Your task to perform on an android device: Show me popular games on the Play Store Image 0: 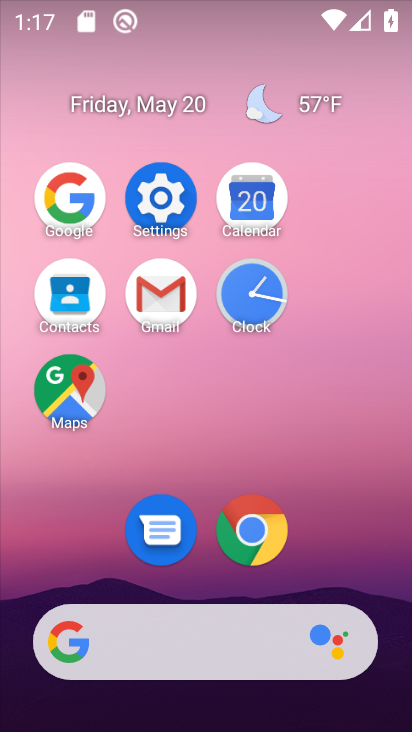
Step 0: drag from (350, 466) to (336, 141)
Your task to perform on an android device: Show me popular games on the Play Store Image 1: 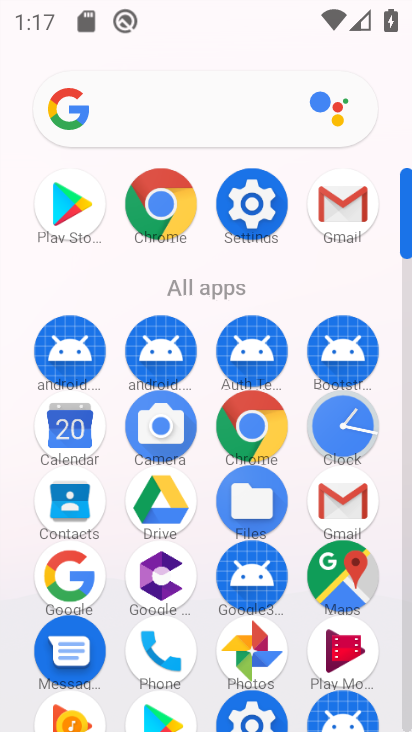
Step 1: drag from (224, 661) to (243, 255)
Your task to perform on an android device: Show me popular games on the Play Store Image 2: 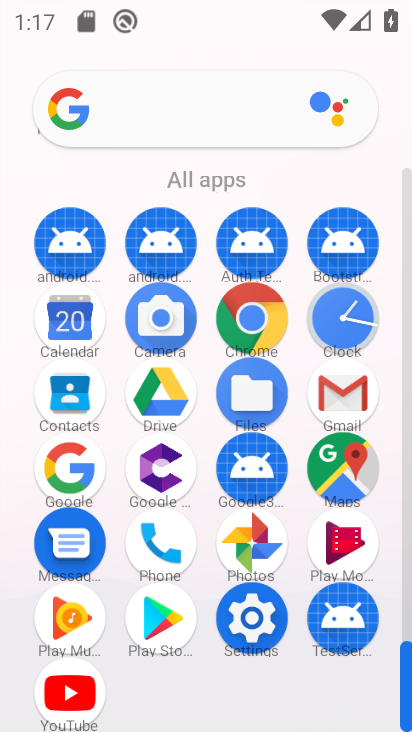
Step 2: click (161, 614)
Your task to perform on an android device: Show me popular games on the Play Store Image 3: 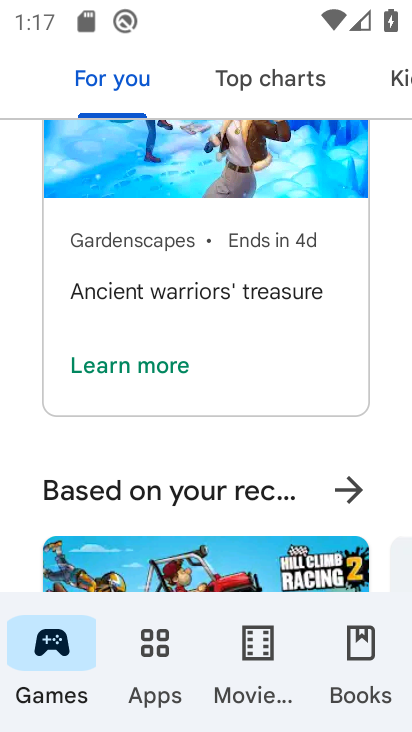
Step 3: drag from (221, 491) to (265, 131)
Your task to perform on an android device: Show me popular games on the Play Store Image 4: 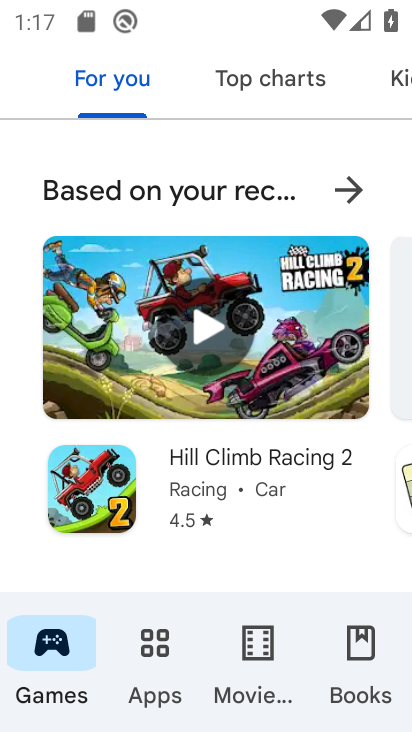
Step 4: drag from (202, 436) to (183, 106)
Your task to perform on an android device: Show me popular games on the Play Store Image 5: 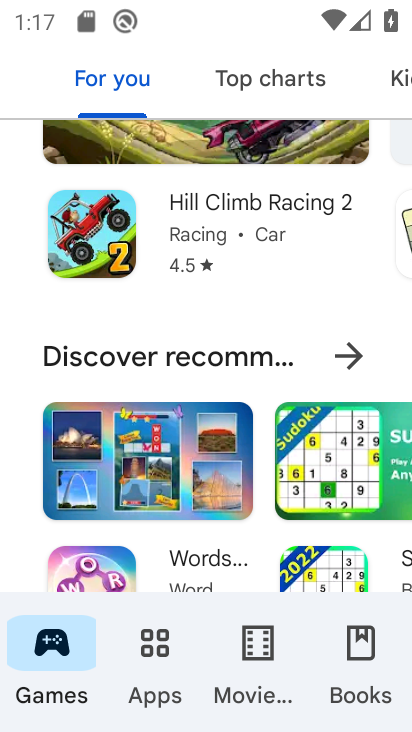
Step 5: drag from (233, 500) to (266, 85)
Your task to perform on an android device: Show me popular games on the Play Store Image 6: 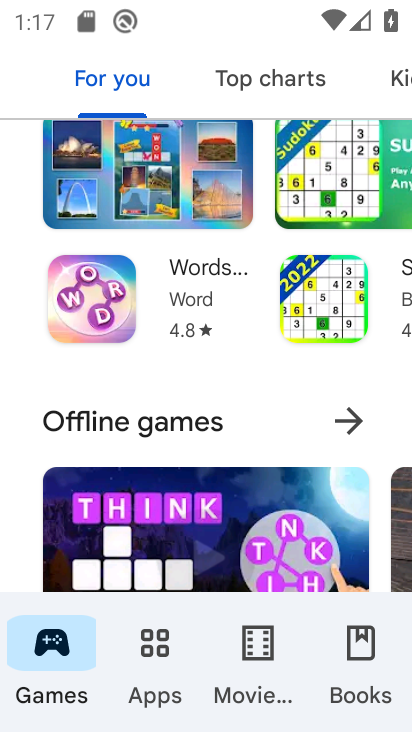
Step 6: drag from (237, 454) to (283, 111)
Your task to perform on an android device: Show me popular games on the Play Store Image 7: 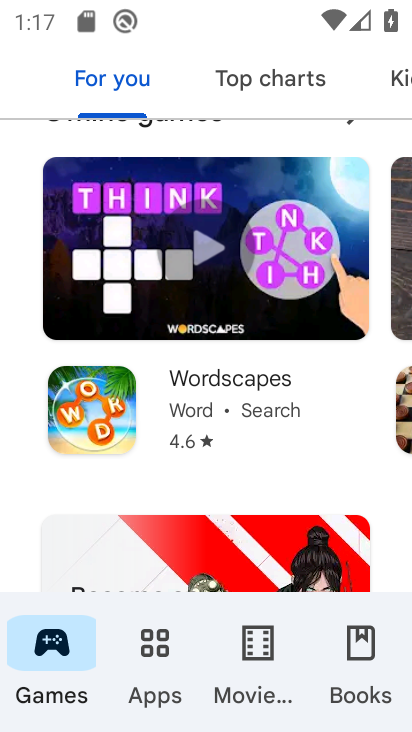
Step 7: drag from (230, 523) to (280, 118)
Your task to perform on an android device: Show me popular games on the Play Store Image 8: 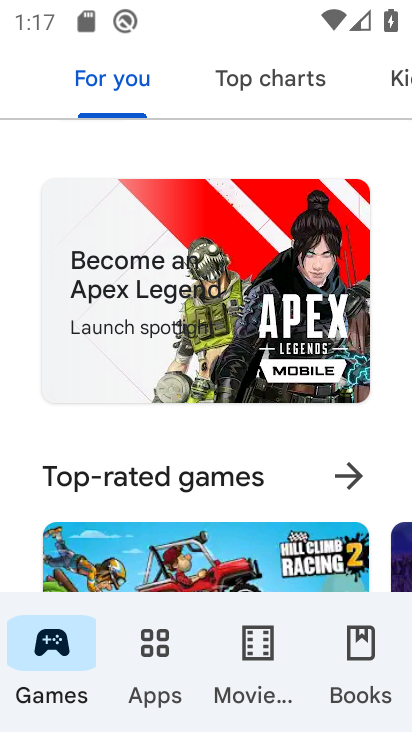
Step 8: drag from (205, 525) to (271, 148)
Your task to perform on an android device: Show me popular games on the Play Store Image 9: 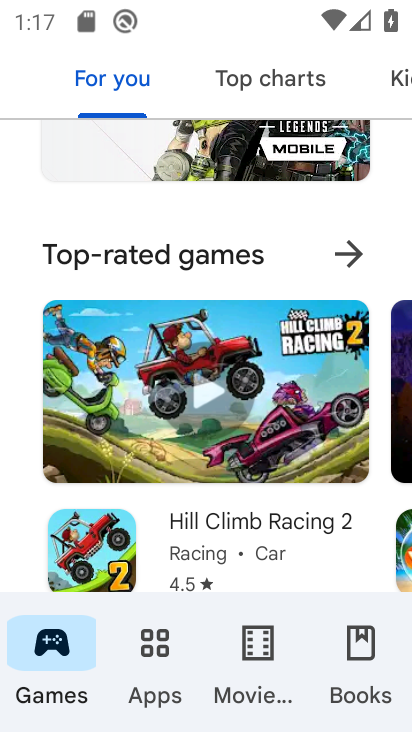
Step 9: drag from (220, 547) to (302, 196)
Your task to perform on an android device: Show me popular games on the Play Store Image 10: 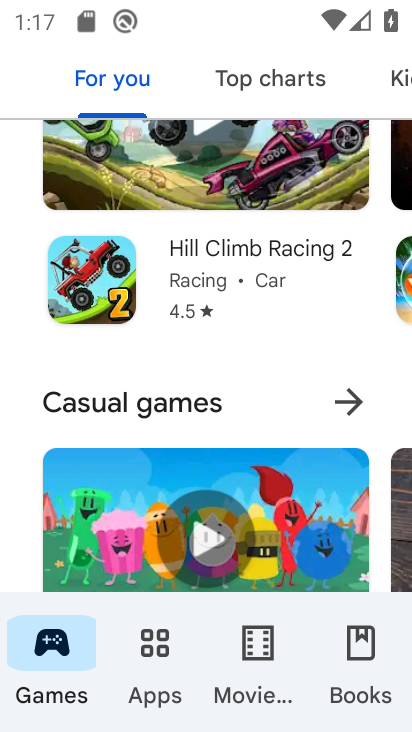
Step 10: drag from (267, 476) to (337, 87)
Your task to perform on an android device: Show me popular games on the Play Store Image 11: 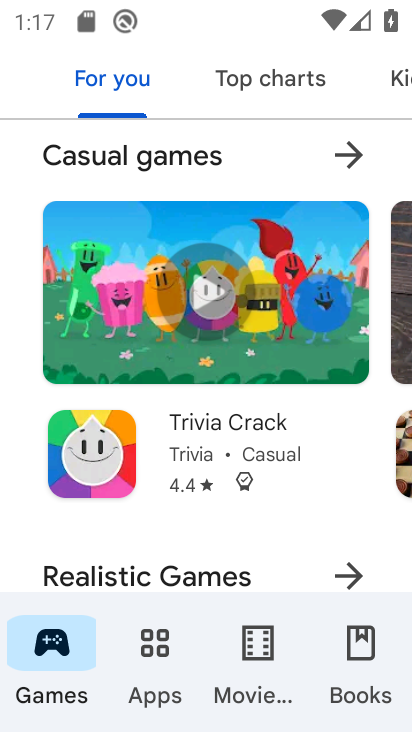
Step 11: drag from (249, 530) to (307, 157)
Your task to perform on an android device: Show me popular games on the Play Store Image 12: 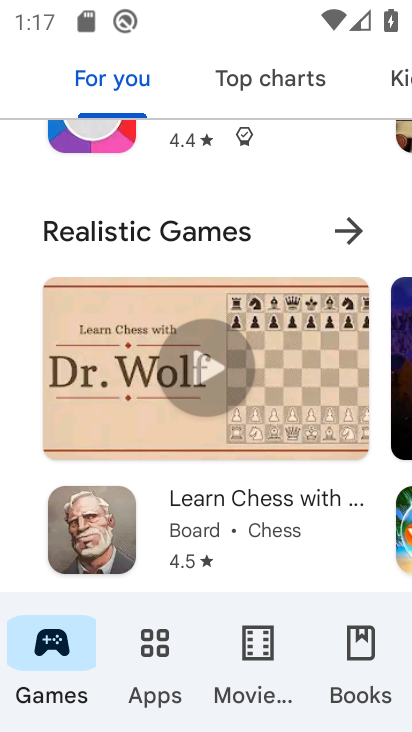
Step 12: drag from (290, 451) to (328, 90)
Your task to perform on an android device: Show me popular games on the Play Store Image 13: 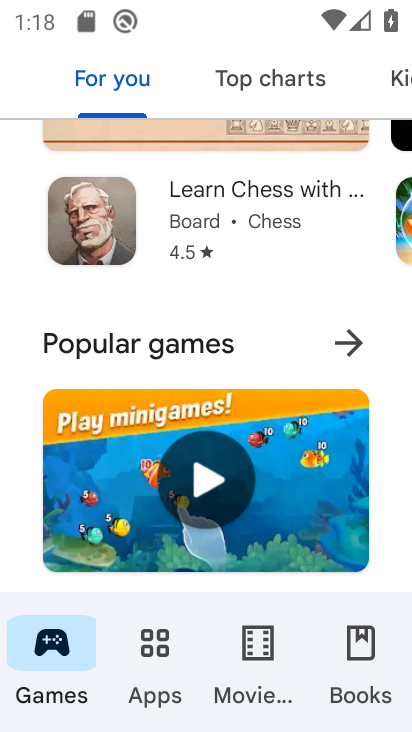
Step 13: click (315, 349)
Your task to perform on an android device: Show me popular games on the Play Store Image 14: 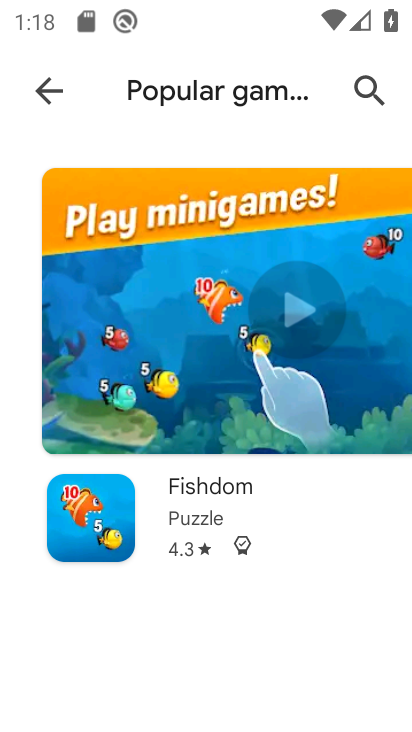
Step 14: task complete